Your task to perform on an android device: snooze an email in the gmail app Image 0: 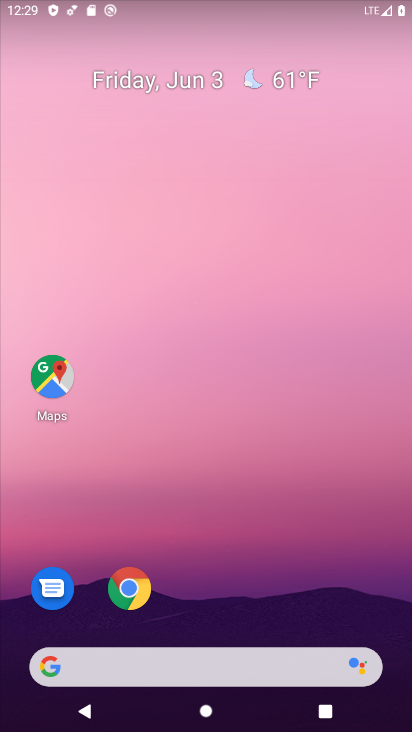
Step 0: drag from (251, 608) to (185, 146)
Your task to perform on an android device: snooze an email in the gmail app Image 1: 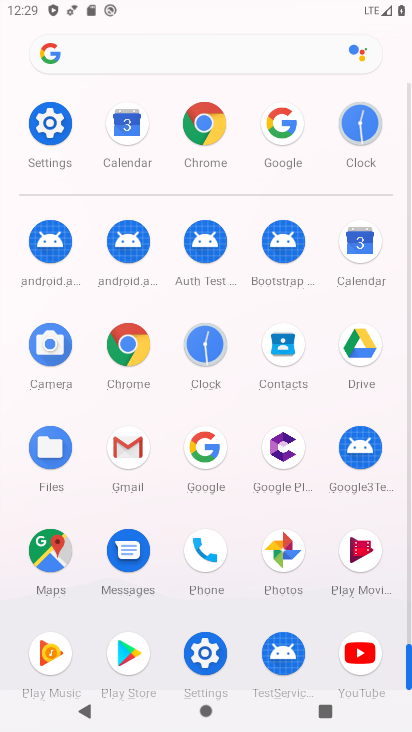
Step 1: click (223, 655)
Your task to perform on an android device: snooze an email in the gmail app Image 2: 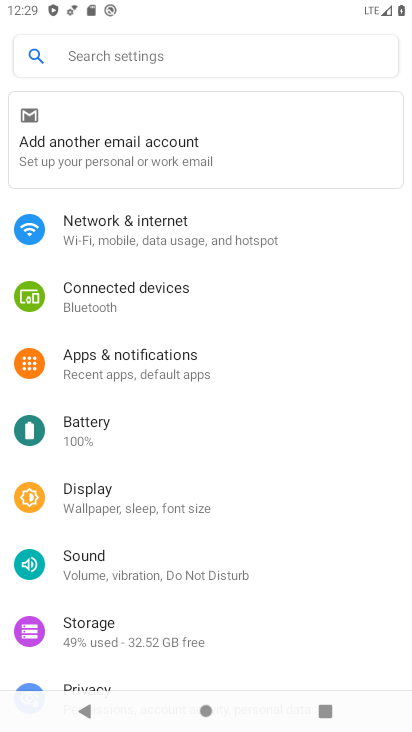
Step 2: press home button
Your task to perform on an android device: snooze an email in the gmail app Image 3: 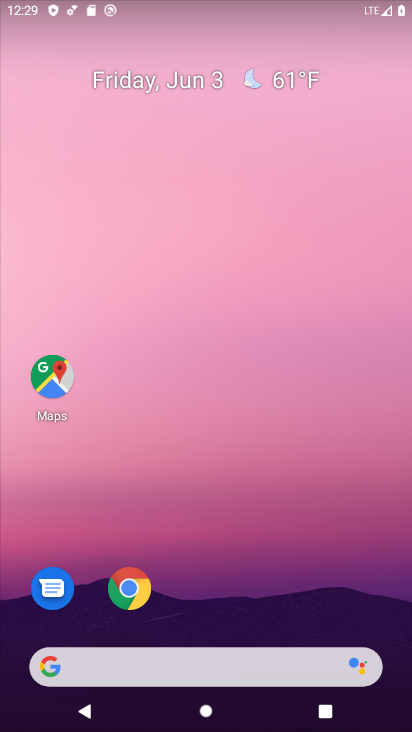
Step 3: drag from (245, 607) to (227, 209)
Your task to perform on an android device: snooze an email in the gmail app Image 4: 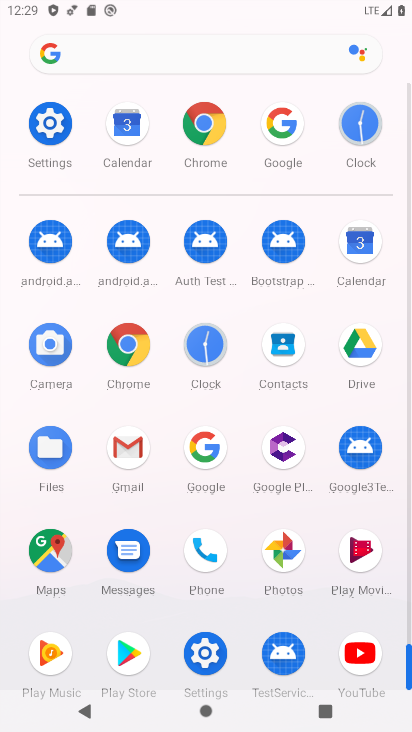
Step 4: click (140, 463)
Your task to perform on an android device: snooze an email in the gmail app Image 5: 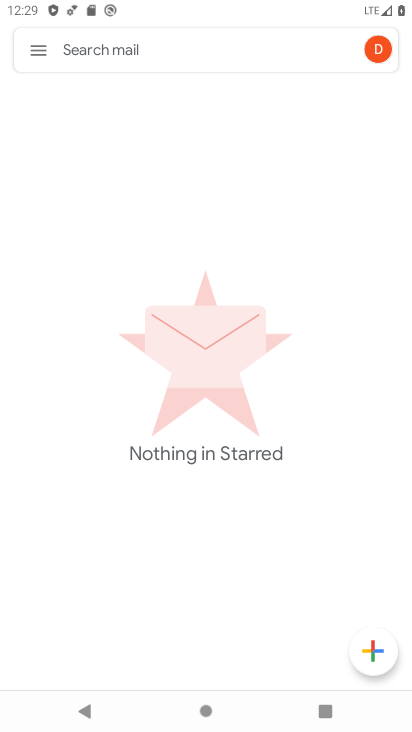
Step 5: click (30, 61)
Your task to perform on an android device: snooze an email in the gmail app Image 6: 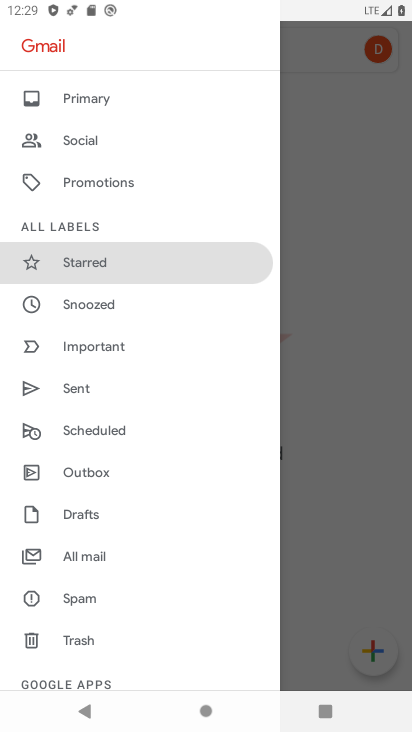
Step 6: click (87, 556)
Your task to perform on an android device: snooze an email in the gmail app Image 7: 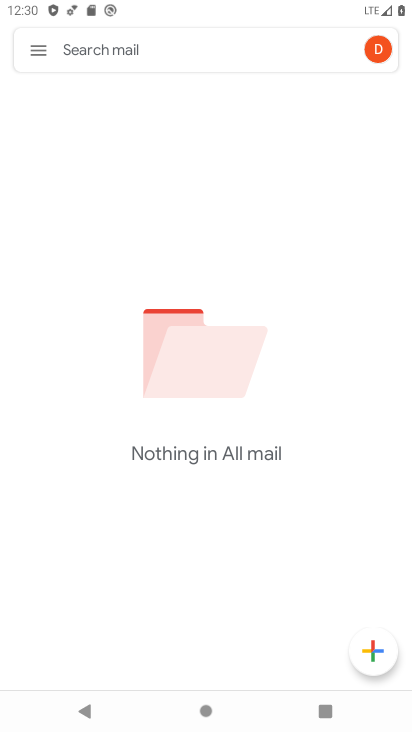
Step 7: task complete